Your task to perform on an android device: What is the capital of France? Image 0: 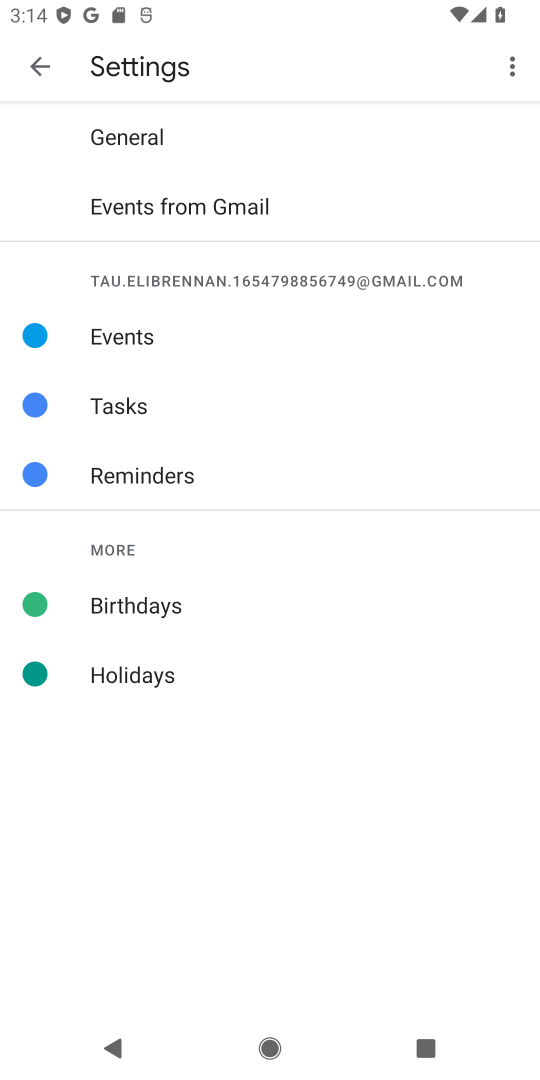
Step 0: press home button
Your task to perform on an android device: What is the capital of France? Image 1: 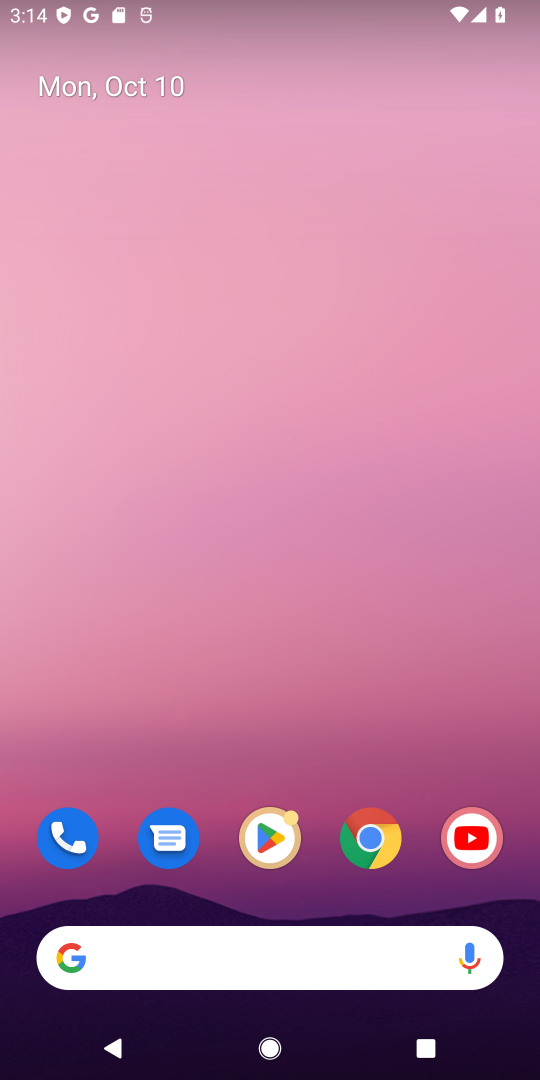
Step 1: click (285, 937)
Your task to perform on an android device: What is the capital of France? Image 2: 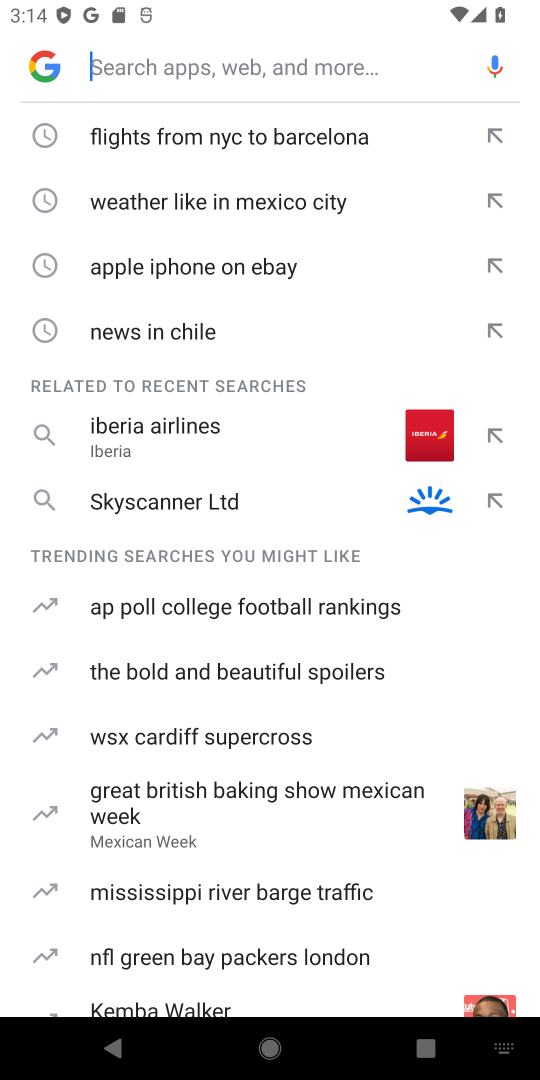
Step 2: type "capital of France"
Your task to perform on an android device: What is the capital of France? Image 3: 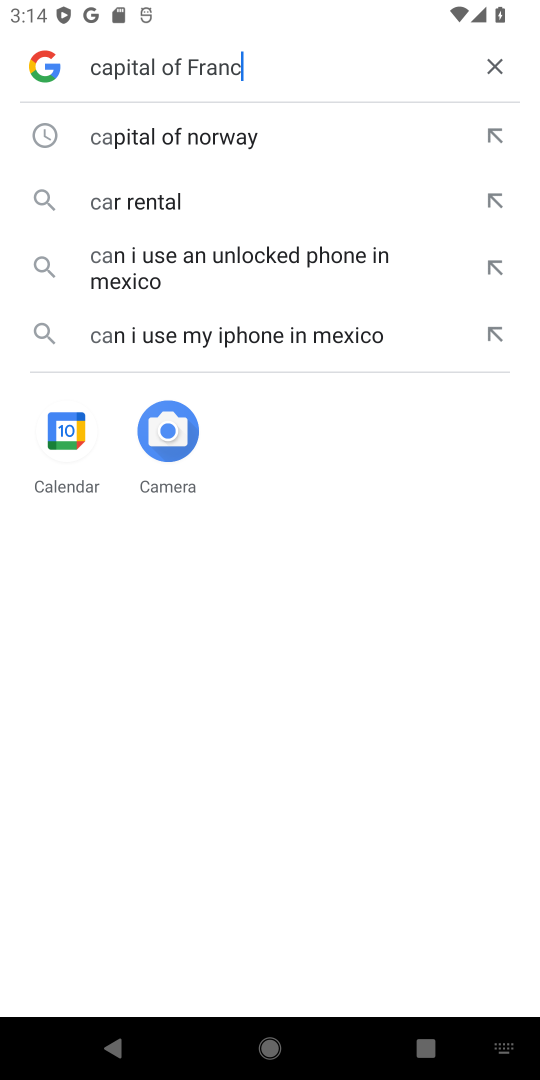
Step 3: type ""
Your task to perform on an android device: What is the capital of France? Image 4: 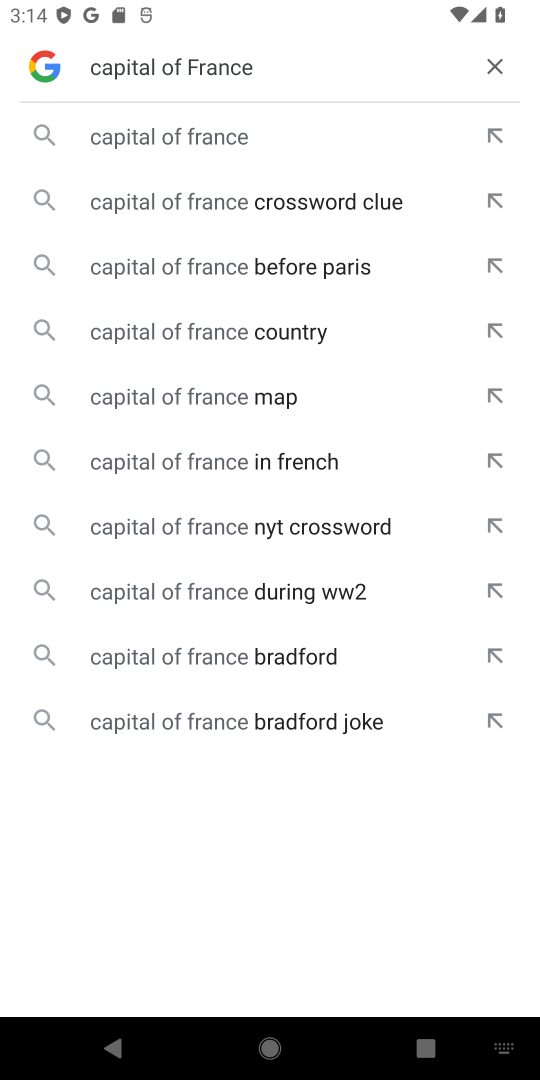
Step 4: click (108, 130)
Your task to perform on an android device: What is the capital of France? Image 5: 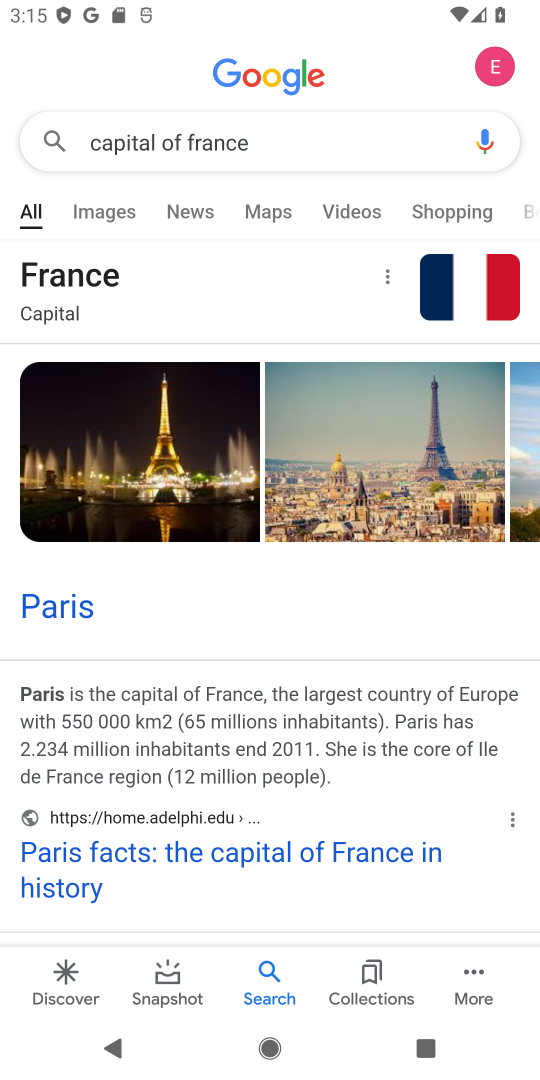
Step 5: task complete